Your task to perform on an android device: change alarm snooze length Image 0: 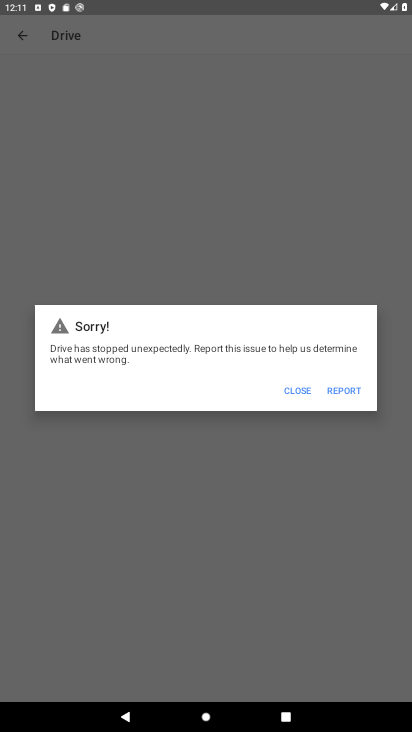
Step 0: press home button
Your task to perform on an android device: change alarm snooze length Image 1: 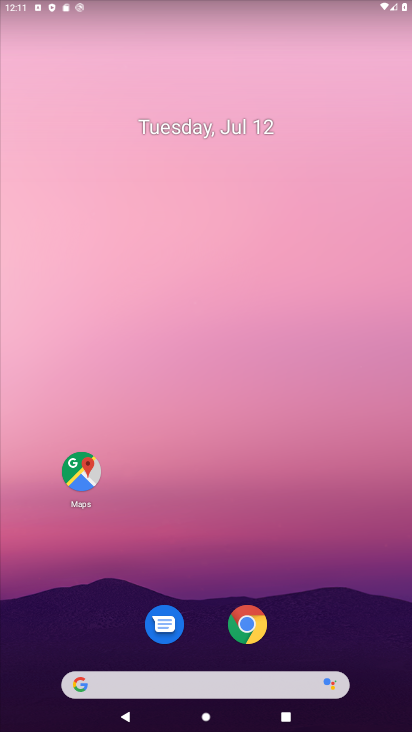
Step 1: drag from (197, 627) to (194, 198)
Your task to perform on an android device: change alarm snooze length Image 2: 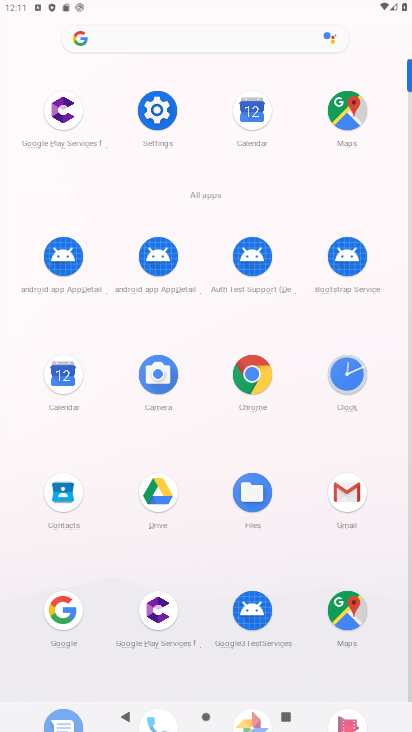
Step 2: click (371, 383)
Your task to perform on an android device: change alarm snooze length Image 3: 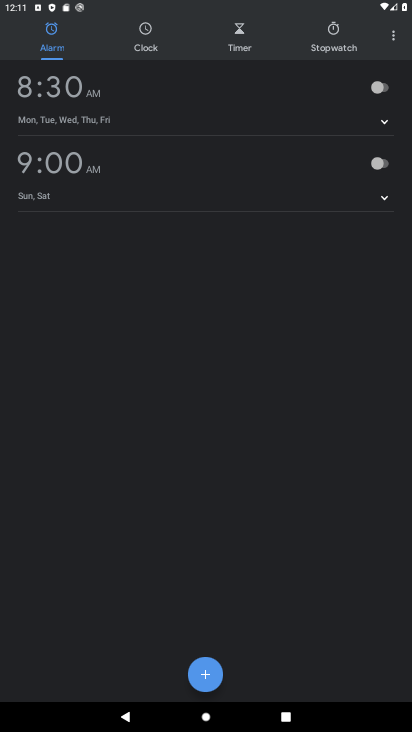
Step 3: click (394, 38)
Your task to perform on an android device: change alarm snooze length Image 4: 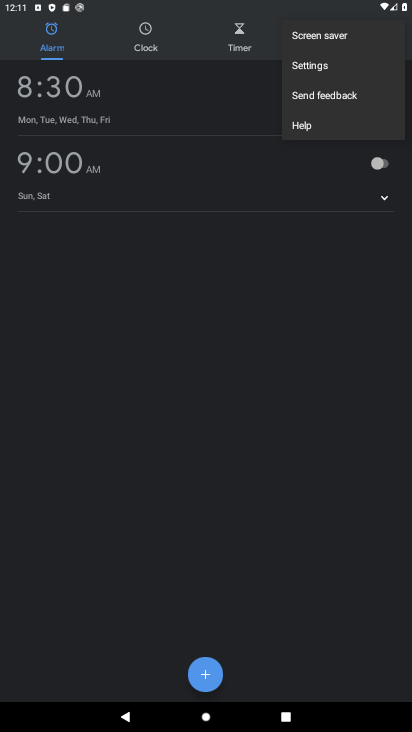
Step 4: click (338, 64)
Your task to perform on an android device: change alarm snooze length Image 5: 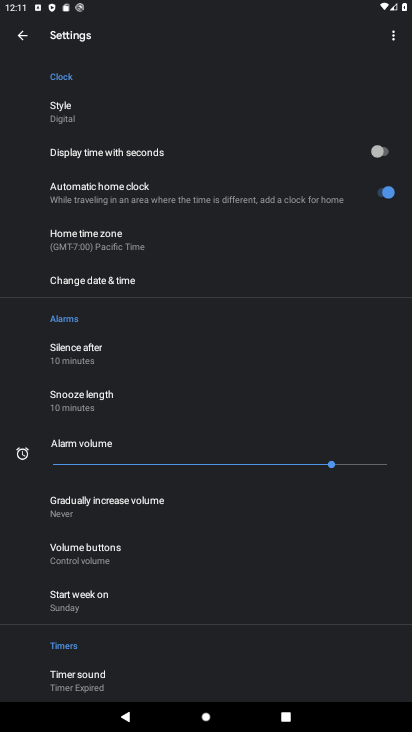
Step 5: click (126, 396)
Your task to perform on an android device: change alarm snooze length Image 6: 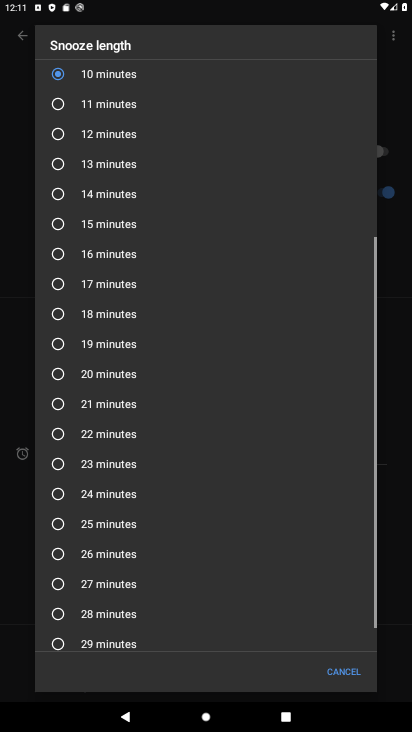
Step 6: click (142, 266)
Your task to perform on an android device: change alarm snooze length Image 7: 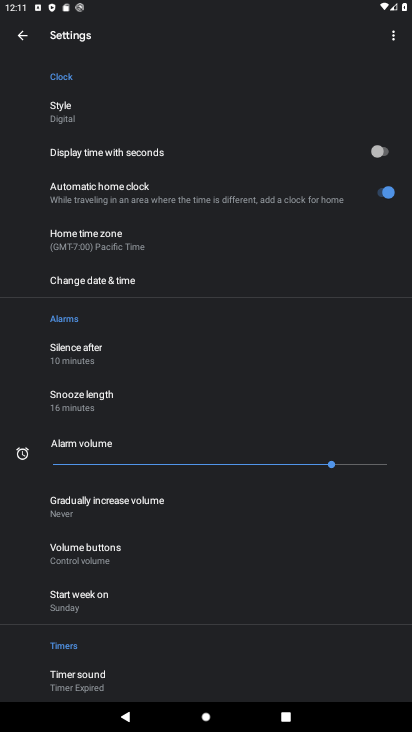
Step 7: task complete